Your task to perform on an android device: Go to accessibility settings Image 0: 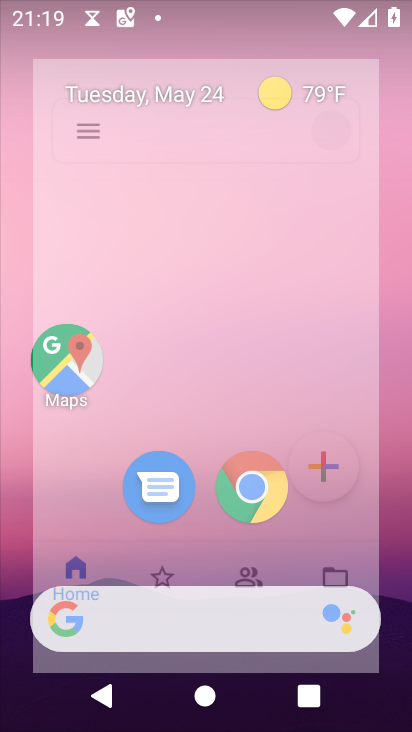
Step 0: press home button
Your task to perform on an android device: Go to accessibility settings Image 1: 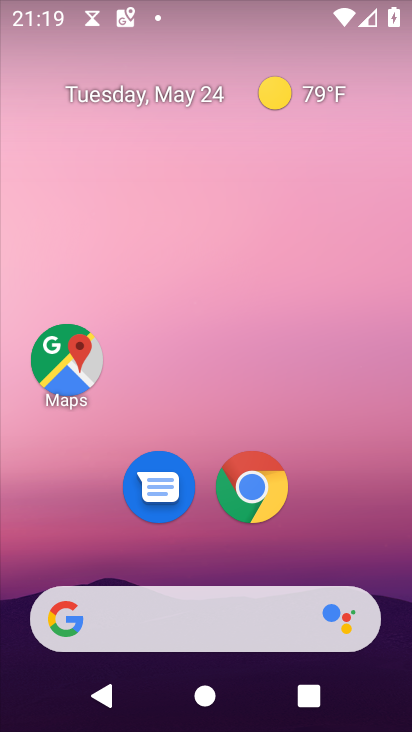
Step 1: drag from (333, 548) to (378, 41)
Your task to perform on an android device: Go to accessibility settings Image 2: 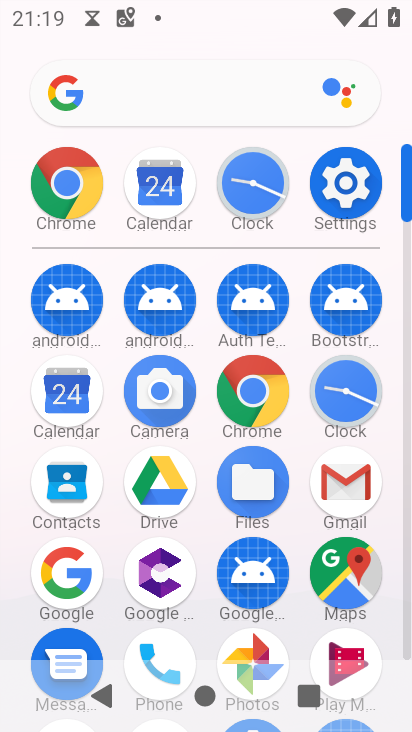
Step 2: click (369, 209)
Your task to perform on an android device: Go to accessibility settings Image 3: 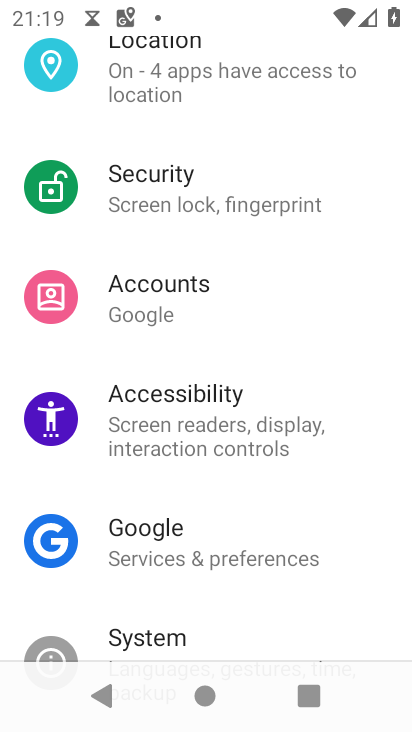
Step 3: click (265, 427)
Your task to perform on an android device: Go to accessibility settings Image 4: 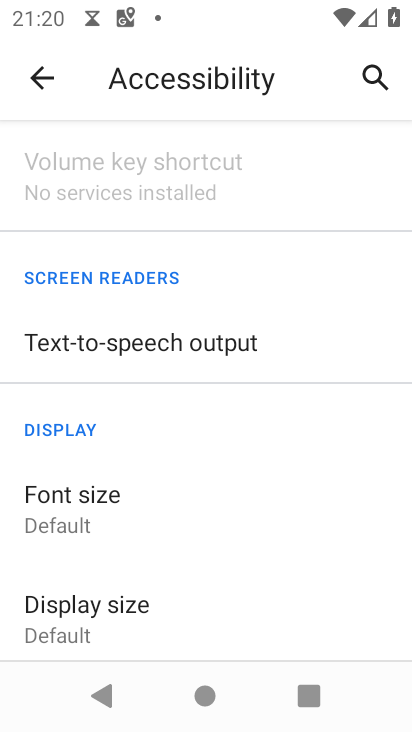
Step 4: task complete